Your task to perform on an android device: Add "usb-a" to the cart on bestbuy.com Image 0: 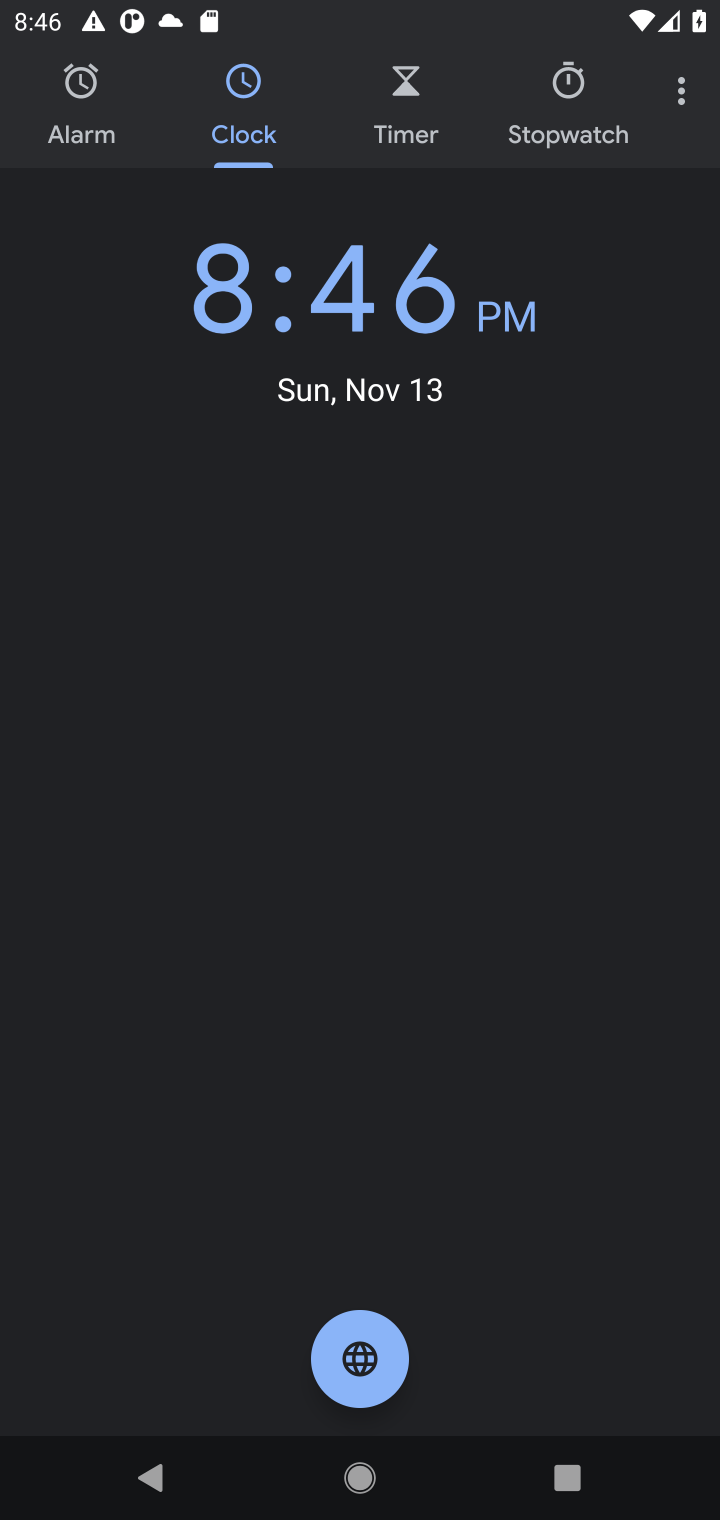
Step 0: press home button
Your task to perform on an android device: Add "usb-a" to the cart on bestbuy.com Image 1: 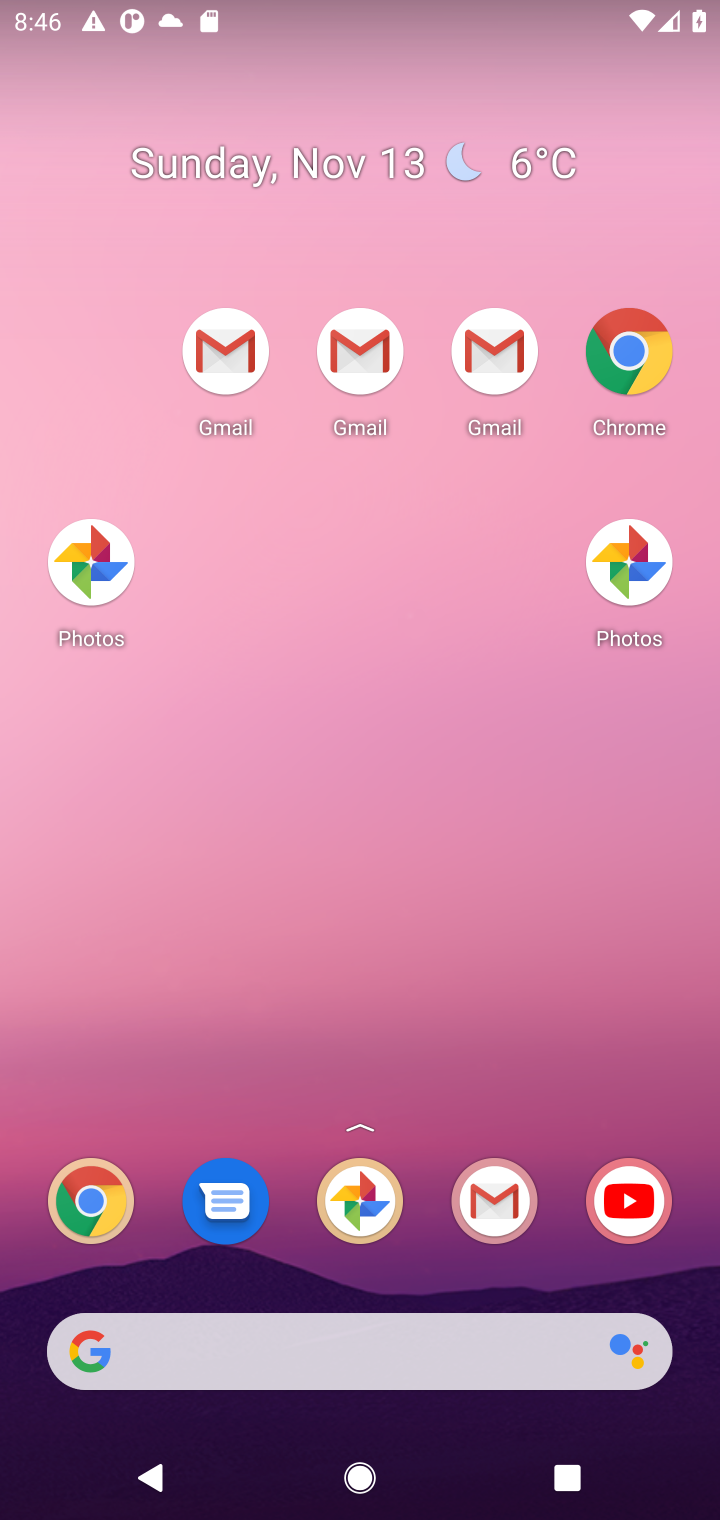
Step 1: drag from (435, 1290) to (427, 266)
Your task to perform on an android device: Add "usb-a" to the cart on bestbuy.com Image 2: 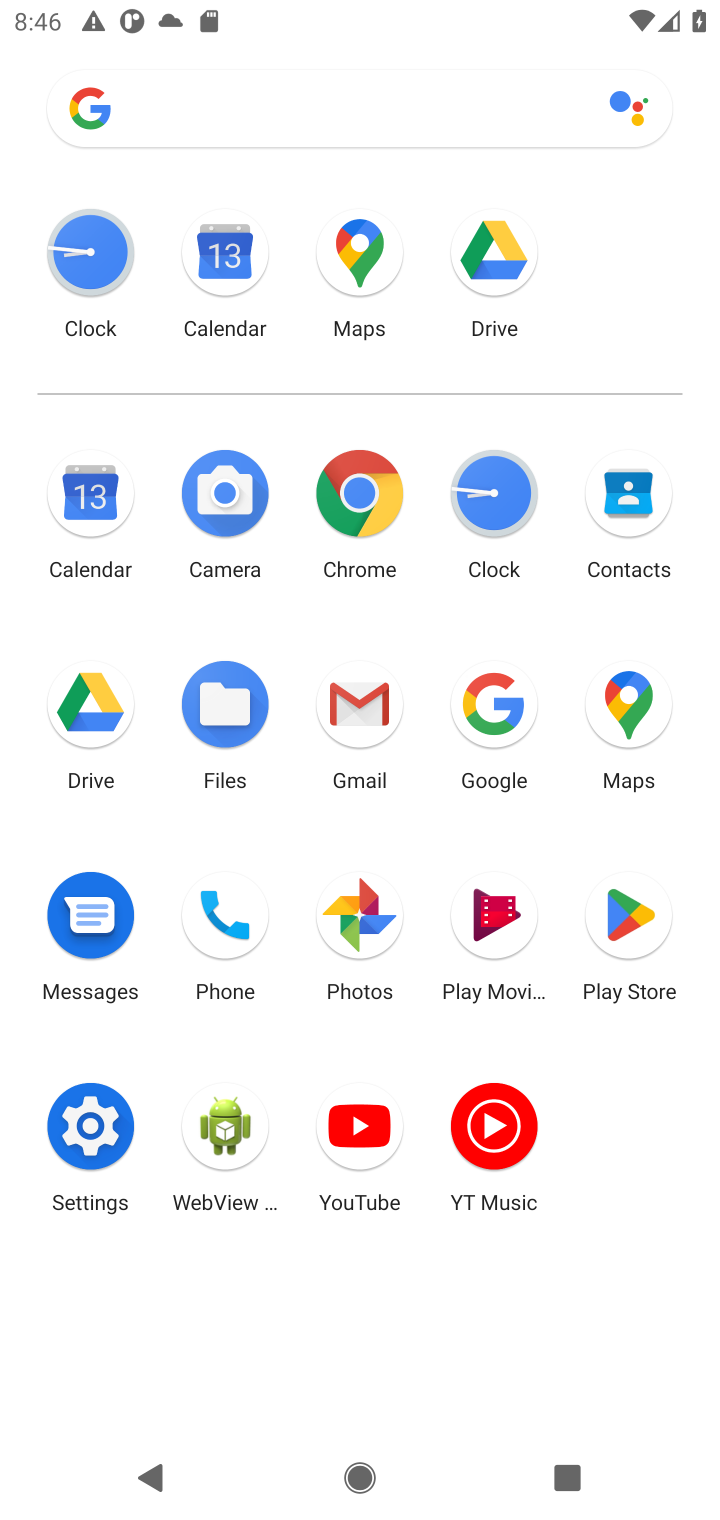
Step 2: click (369, 486)
Your task to perform on an android device: Add "usb-a" to the cart on bestbuy.com Image 3: 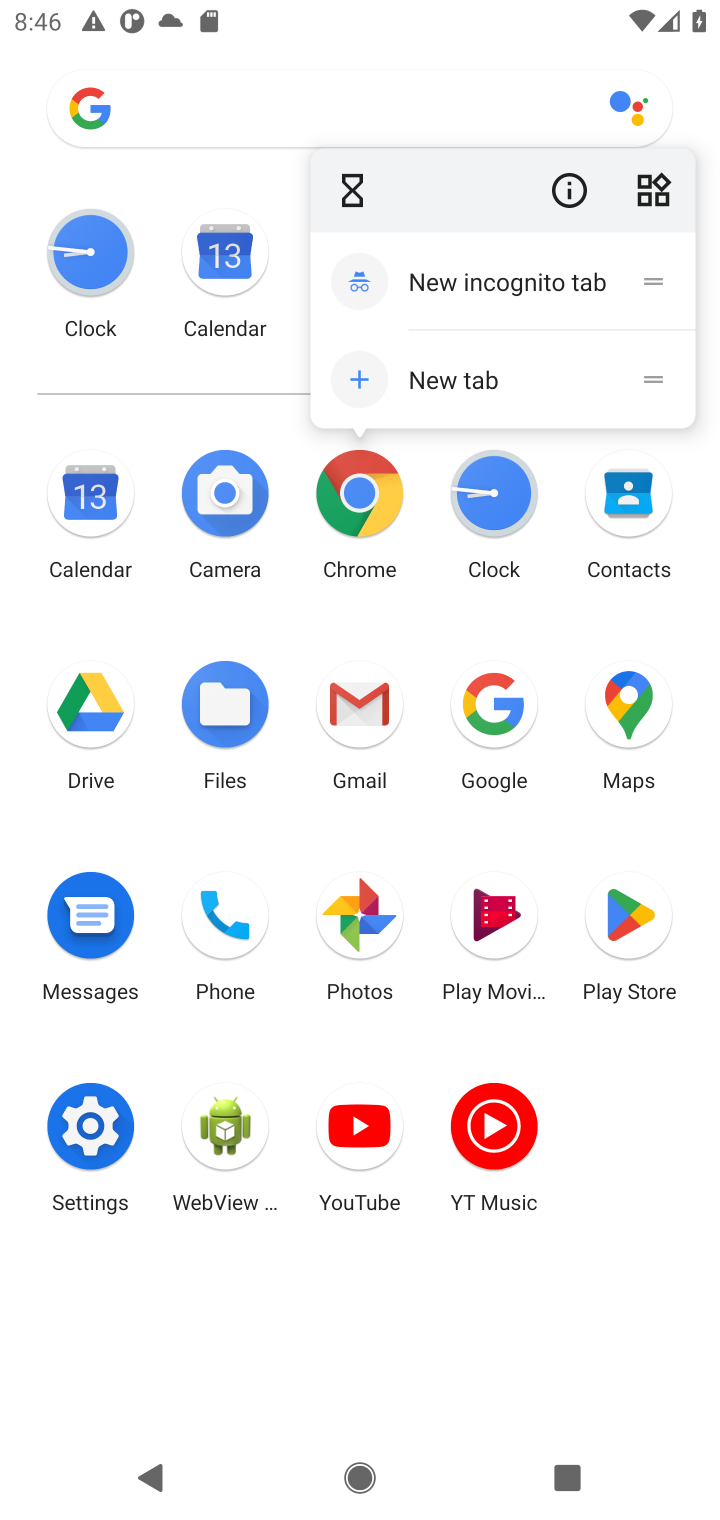
Step 3: click (356, 499)
Your task to perform on an android device: Add "usb-a" to the cart on bestbuy.com Image 4: 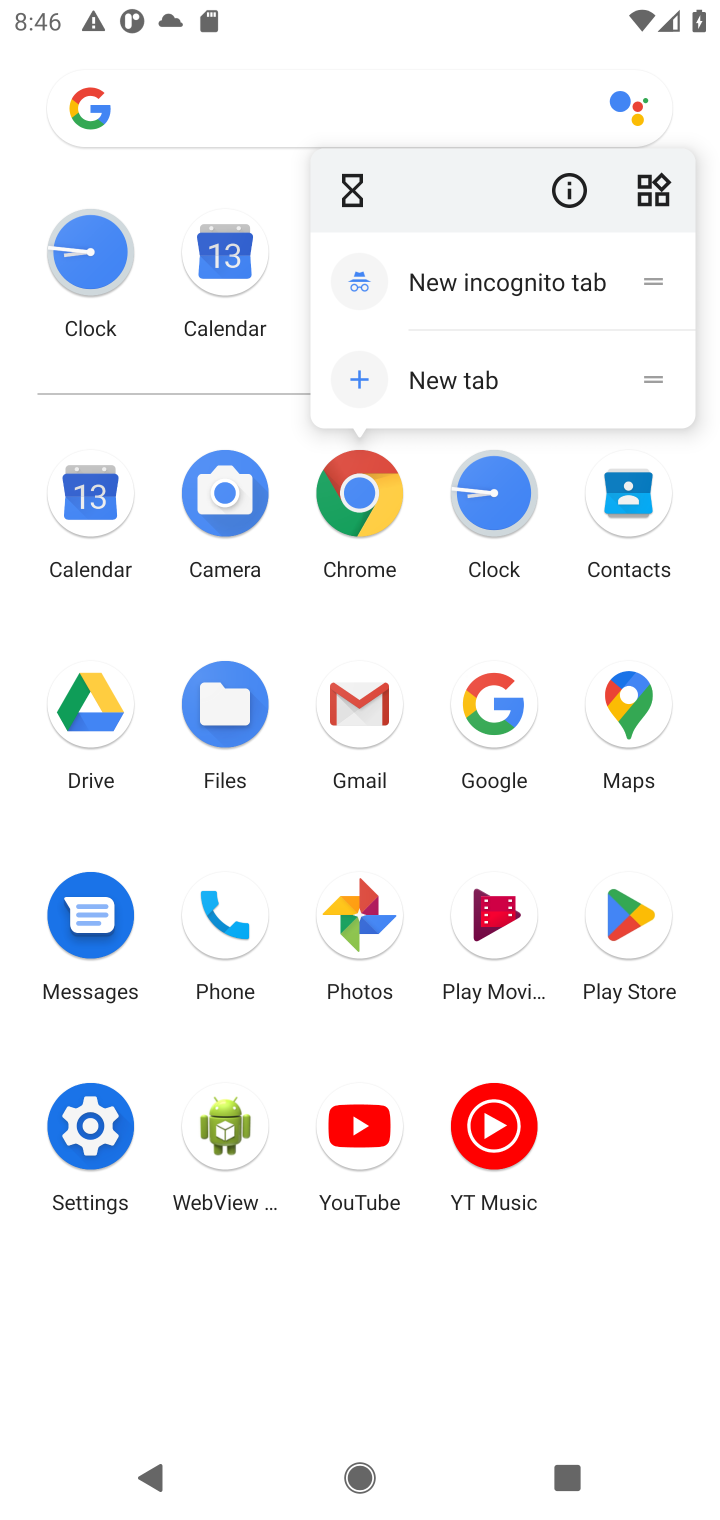
Step 4: click (373, 484)
Your task to perform on an android device: Add "usb-a" to the cart on bestbuy.com Image 5: 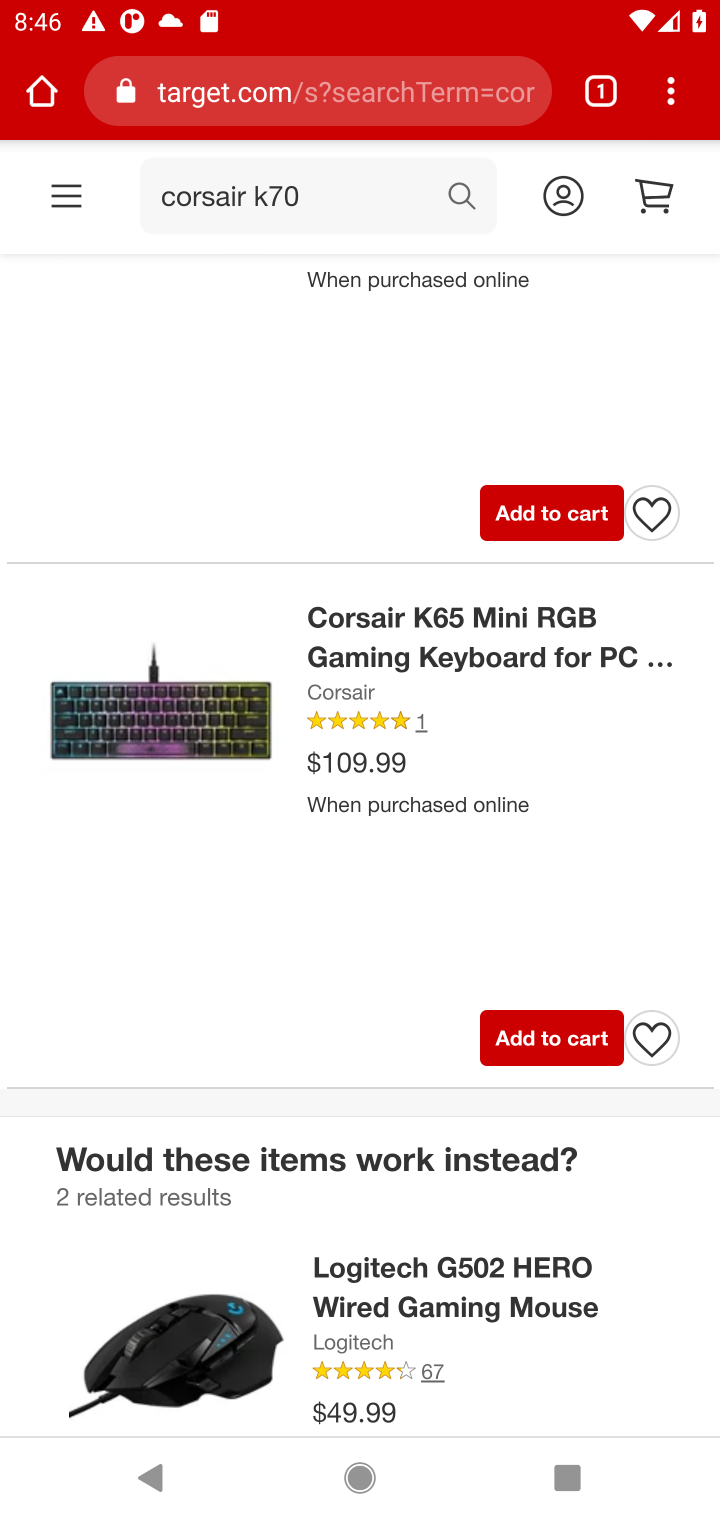
Step 5: click (386, 86)
Your task to perform on an android device: Add "usb-a" to the cart on bestbuy.com Image 6: 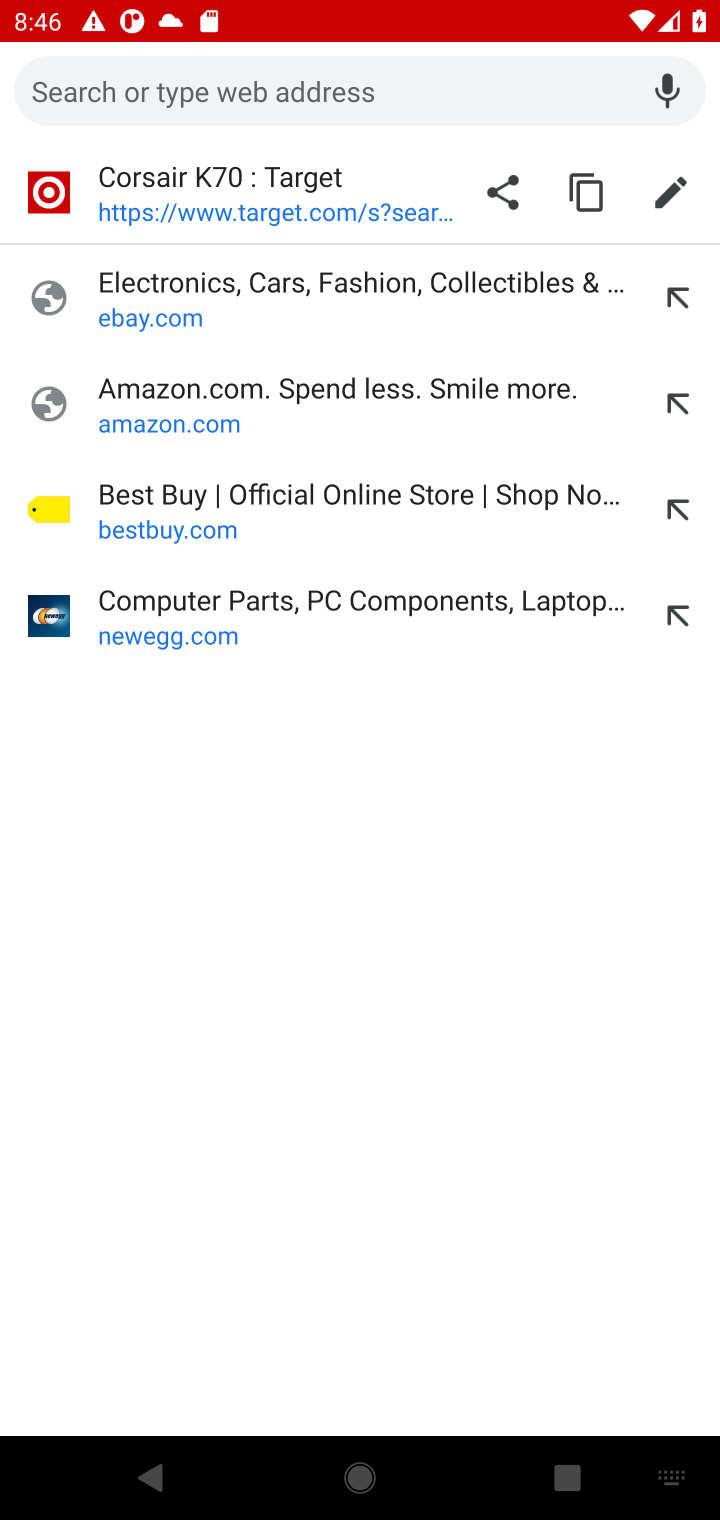
Step 6: type "bestbuy.com"
Your task to perform on an android device: Add "usb-a" to the cart on bestbuy.com Image 7: 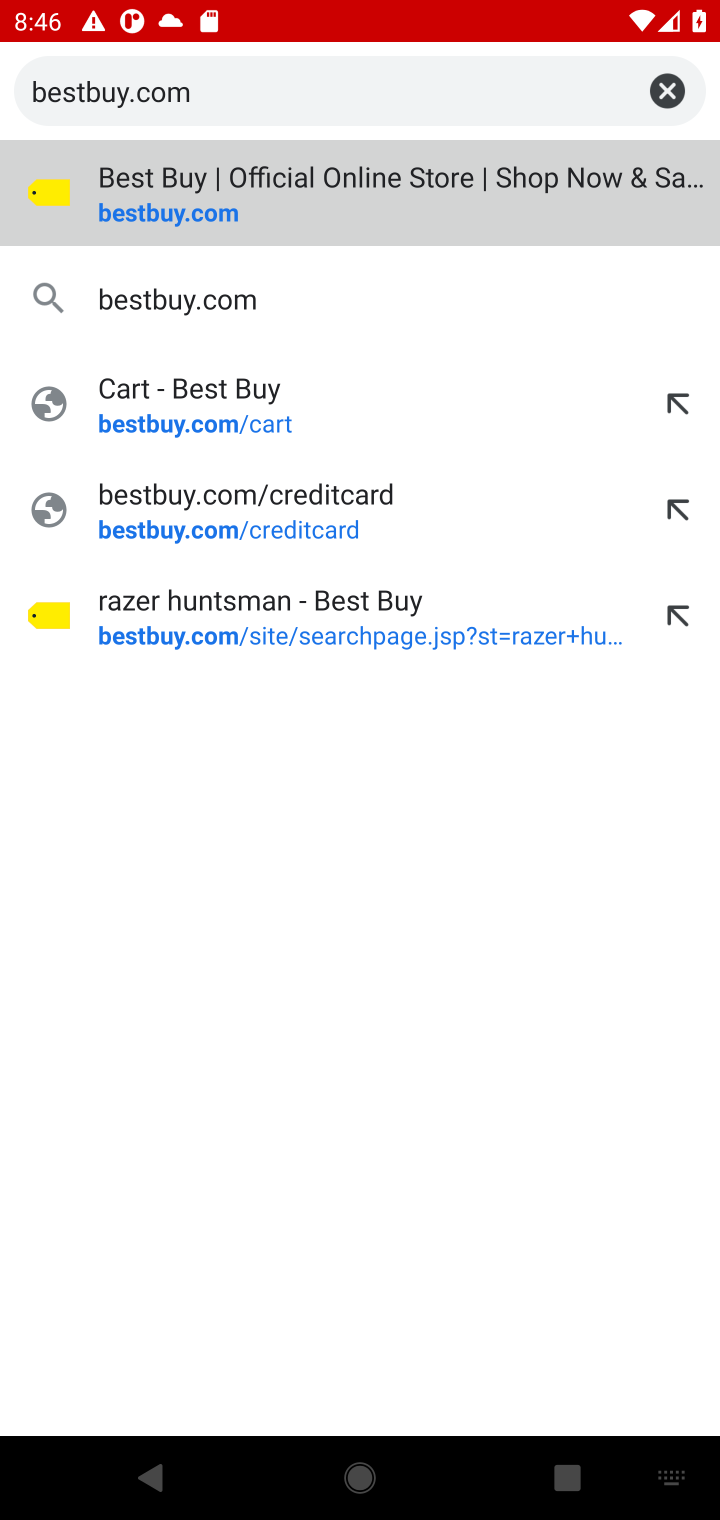
Step 7: press enter
Your task to perform on an android device: Add "usb-a" to the cart on bestbuy.com Image 8: 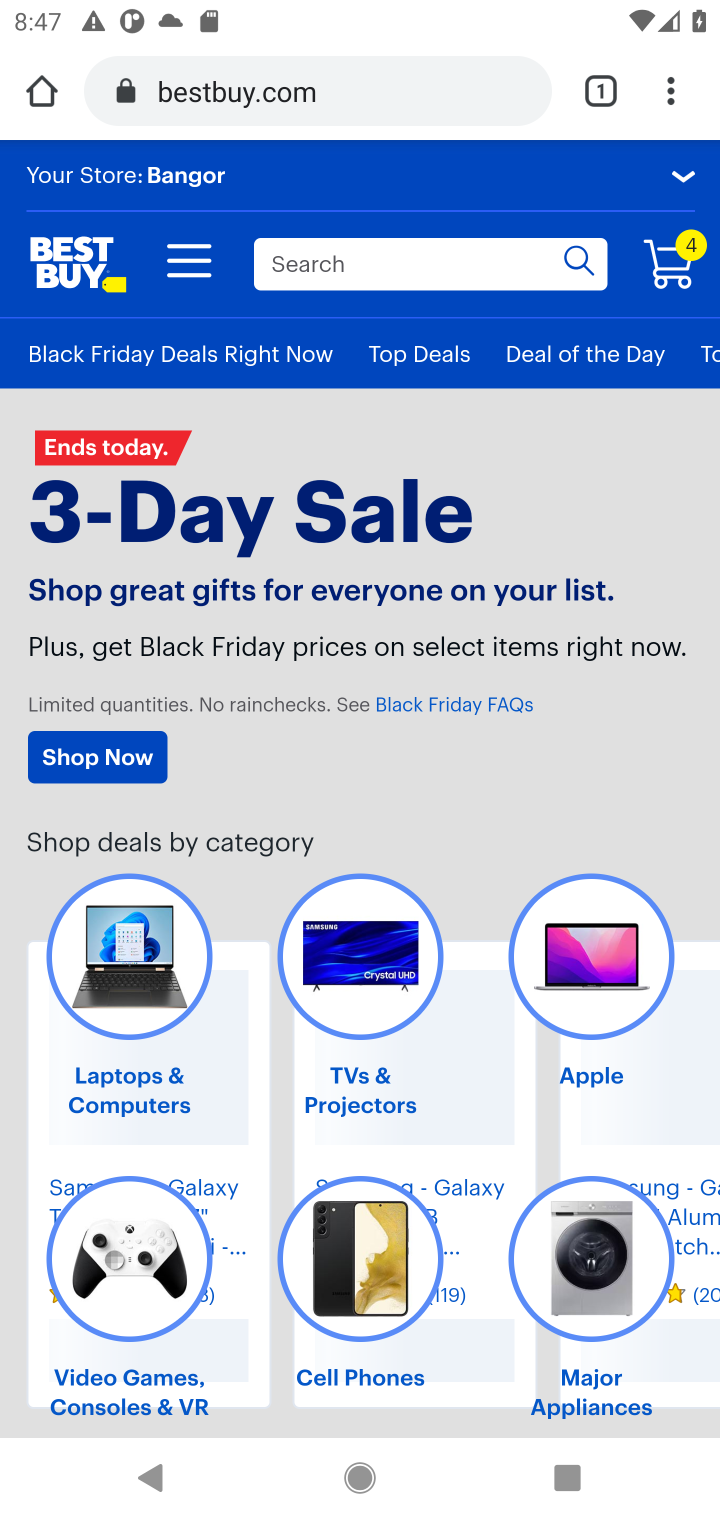
Step 8: click (473, 266)
Your task to perform on an android device: Add "usb-a" to the cart on bestbuy.com Image 9: 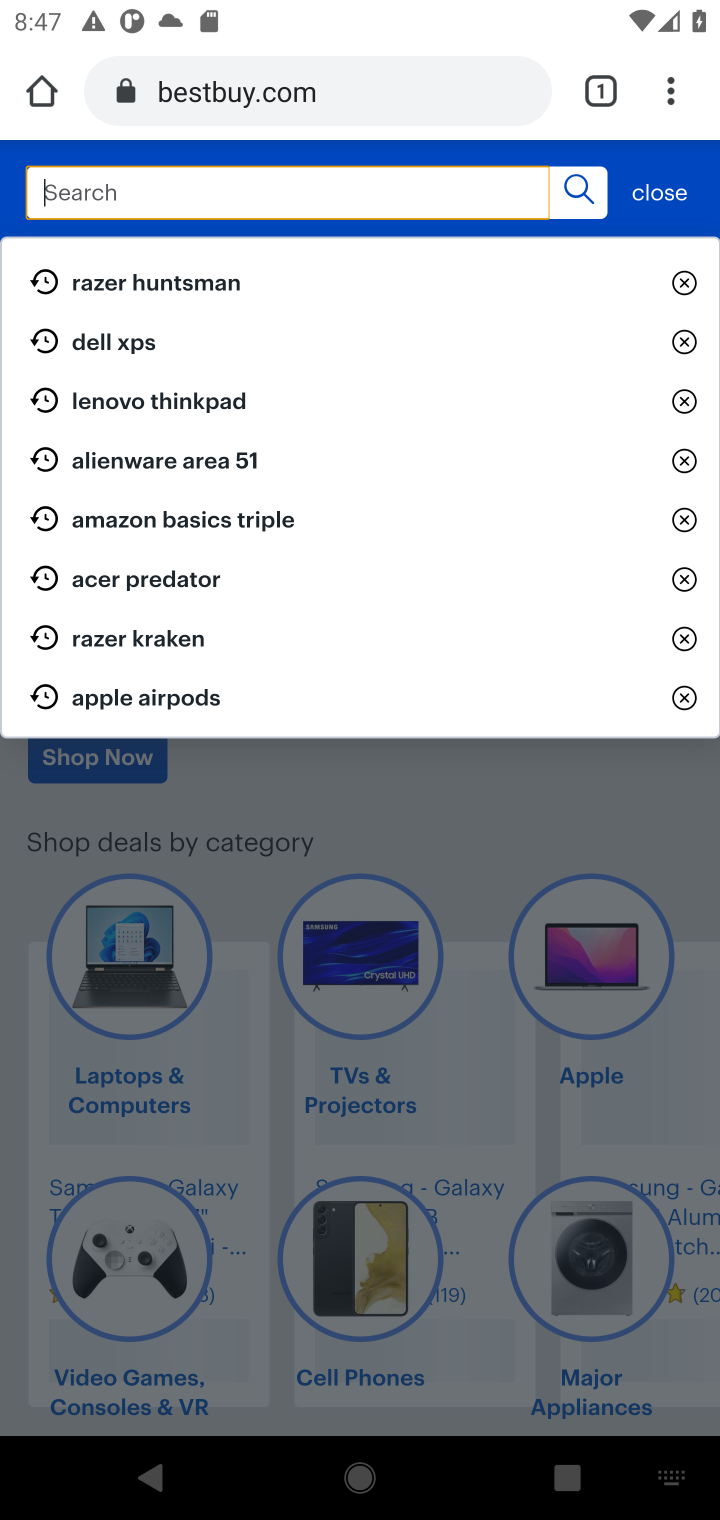
Step 9: type "usb-a"
Your task to perform on an android device: Add "usb-a" to the cart on bestbuy.com Image 10: 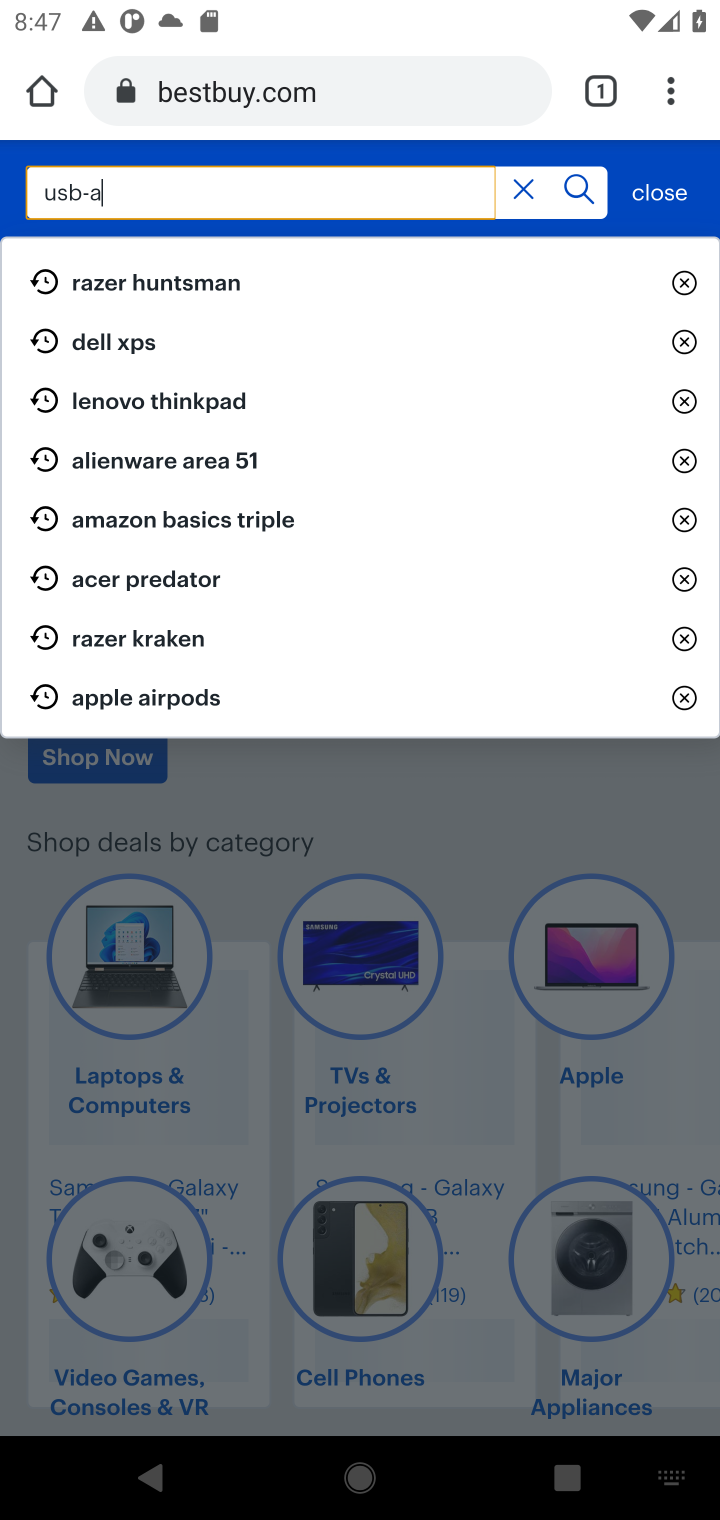
Step 10: press enter
Your task to perform on an android device: Add "usb-a" to the cart on bestbuy.com Image 11: 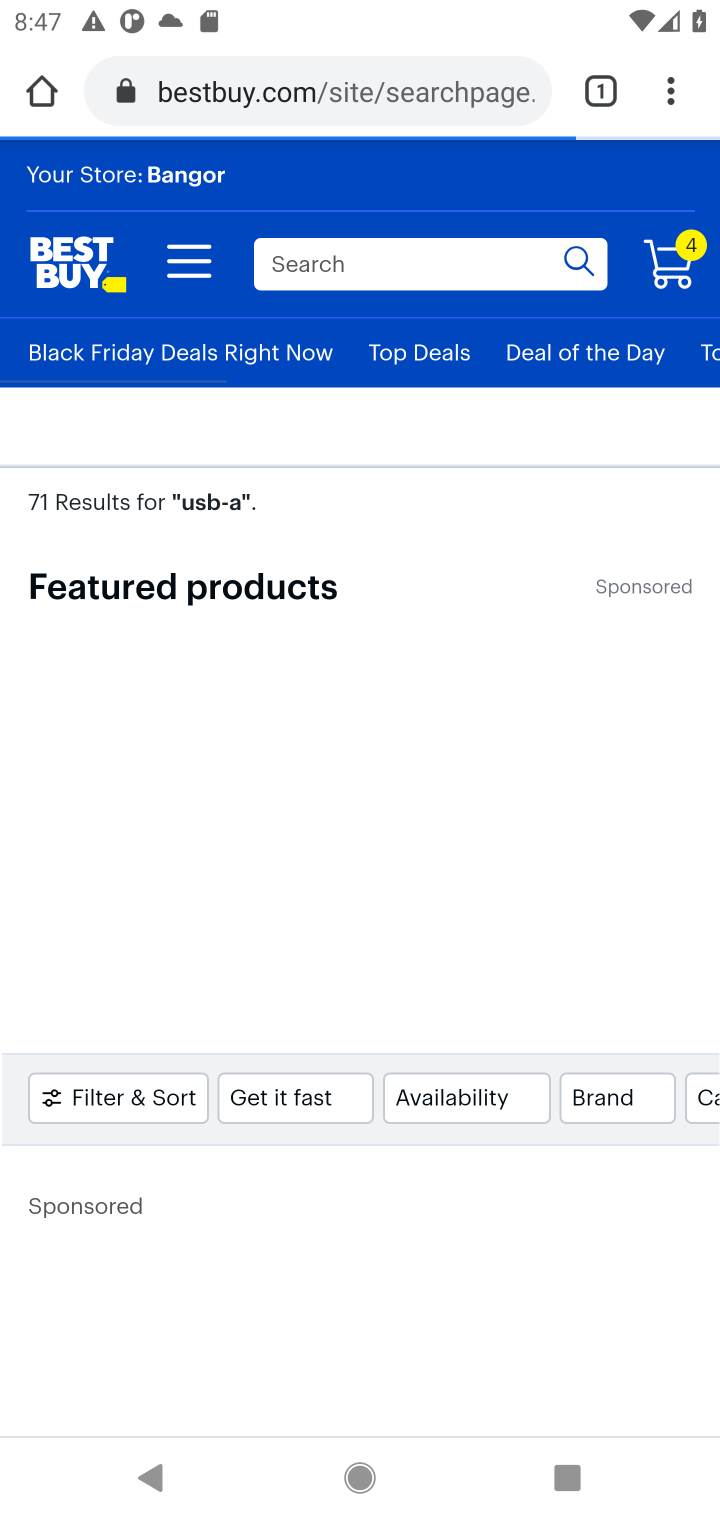
Step 11: press enter
Your task to perform on an android device: Add "usb-a" to the cart on bestbuy.com Image 12: 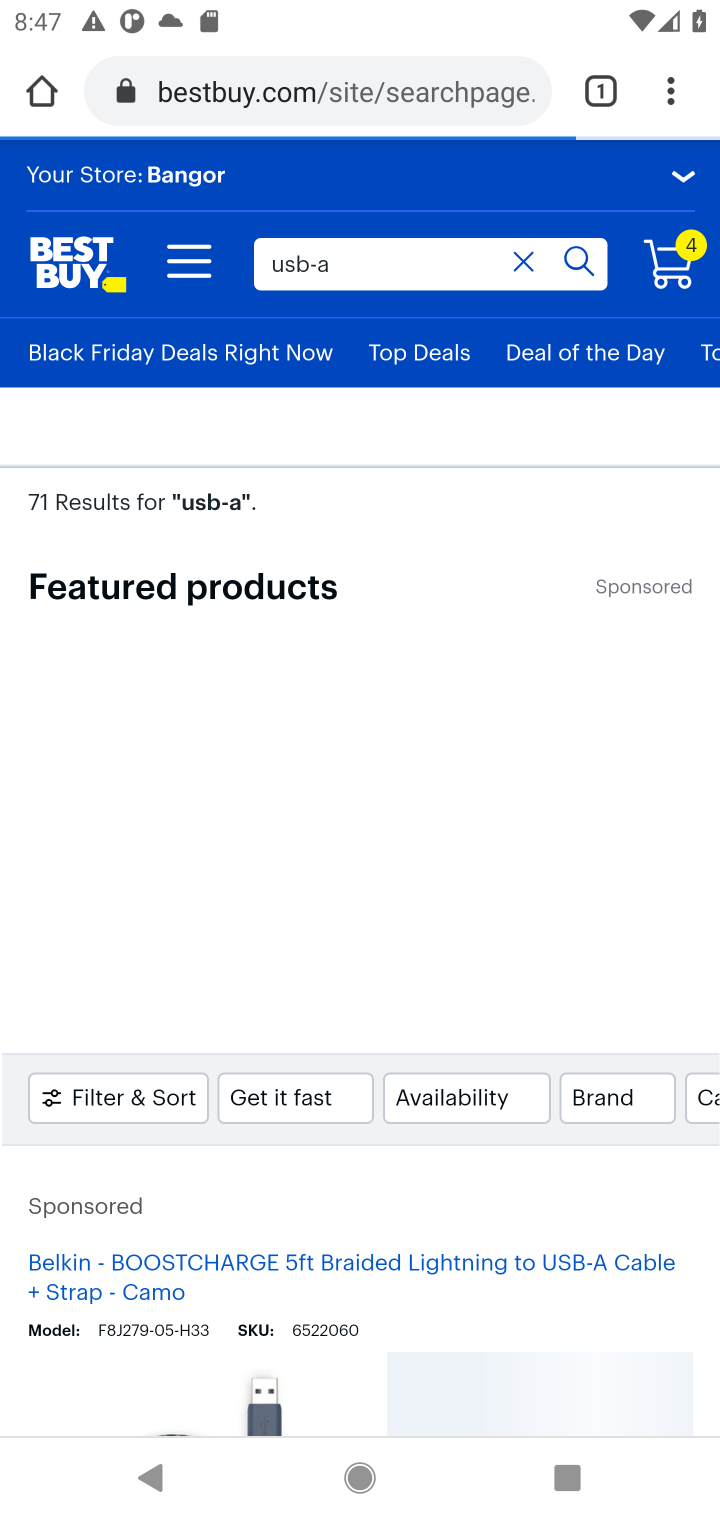
Step 12: drag from (382, 1098) to (493, 320)
Your task to perform on an android device: Add "usb-a" to the cart on bestbuy.com Image 13: 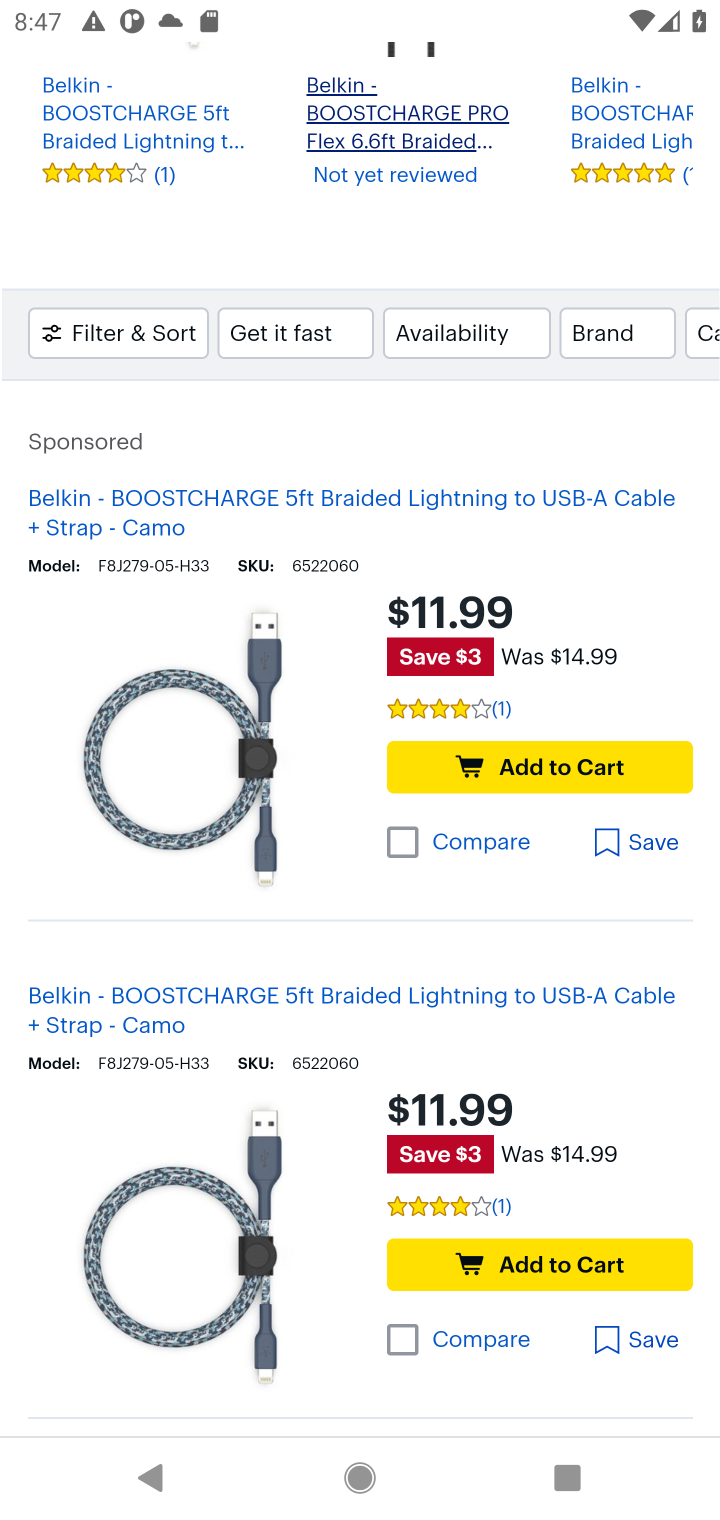
Step 13: drag from (520, 1297) to (551, 838)
Your task to perform on an android device: Add "usb-a" to the cart on bestbuy.com Image 14: 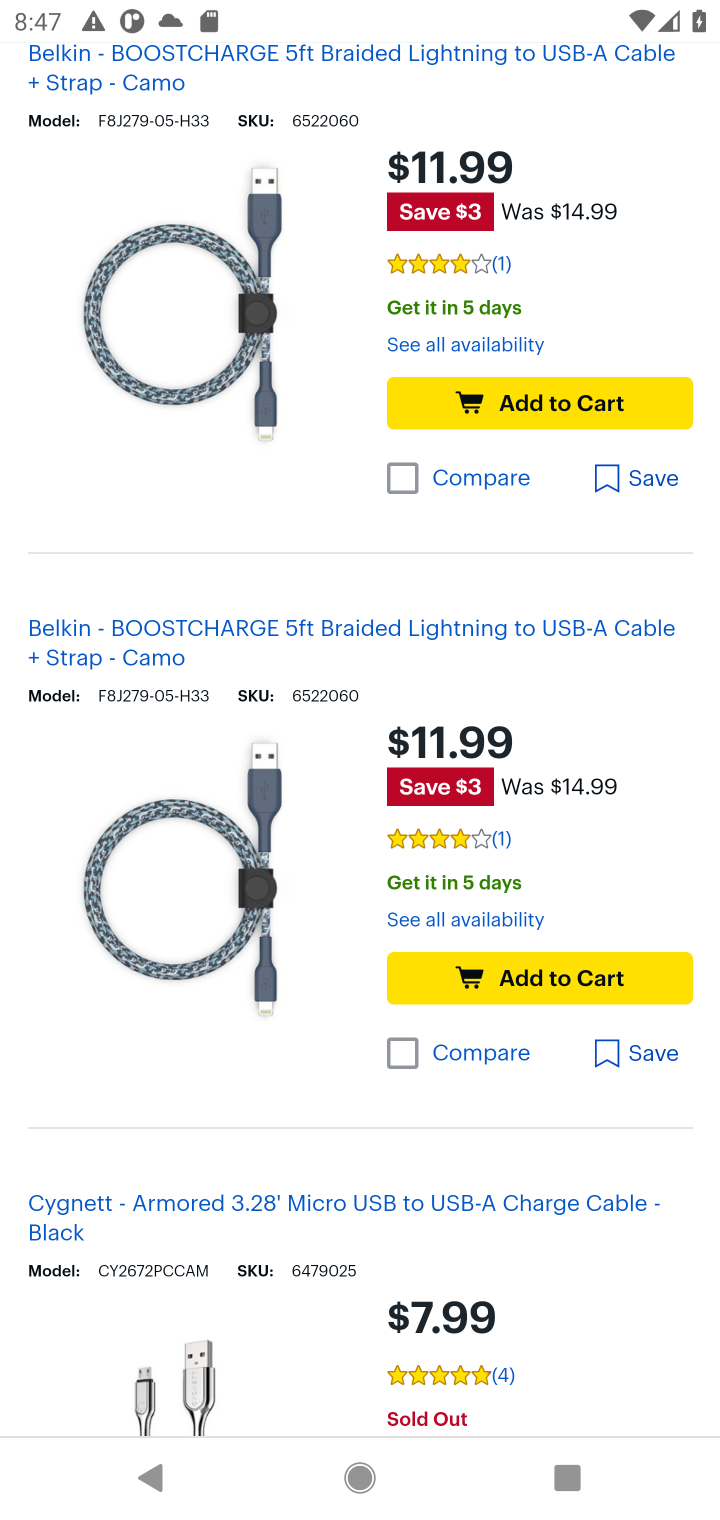
Step 14: click (530, 963)
Your task to perform on an android device: Add "usb-a" to the cart on bestbuy.com Image 15: 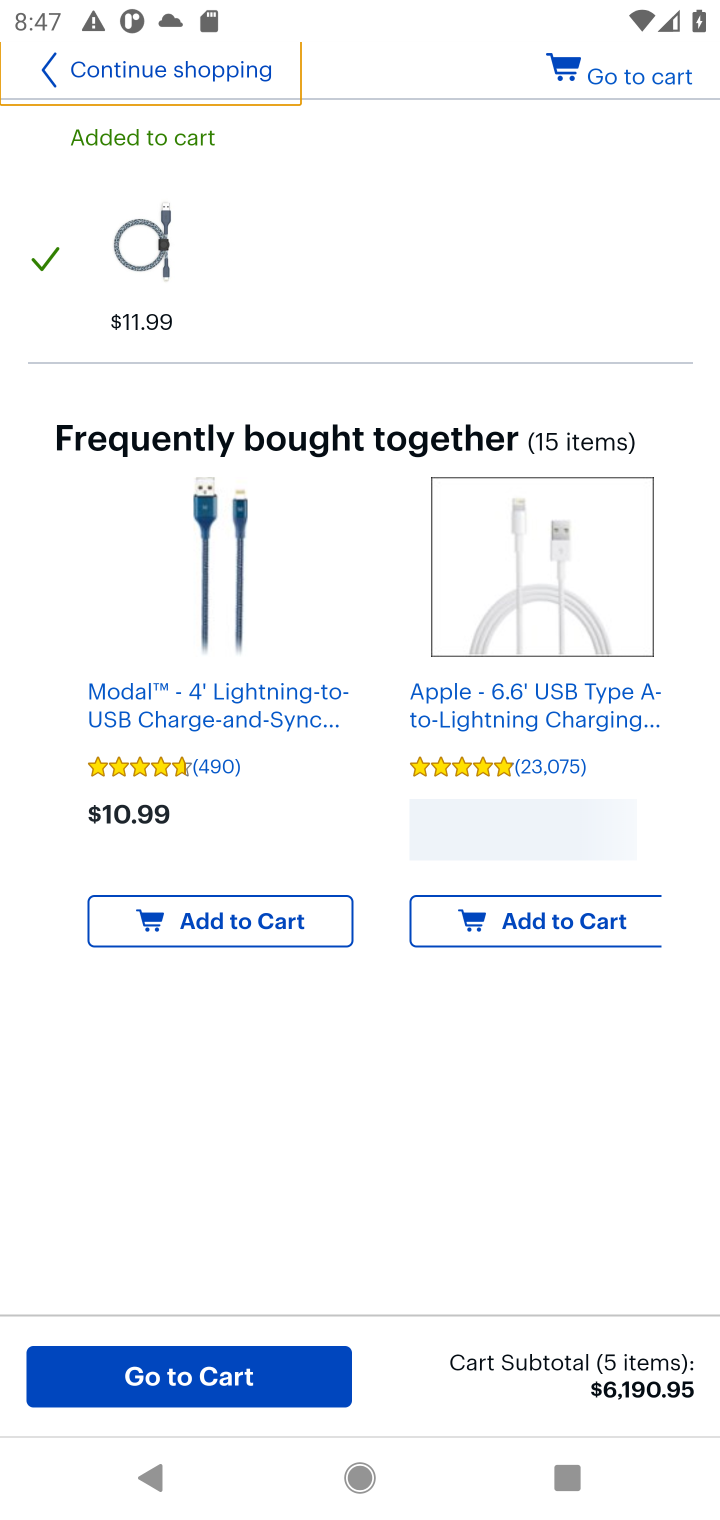
Step 15: task complete